Your task to perform on an android device: Show me recent news Image 0: 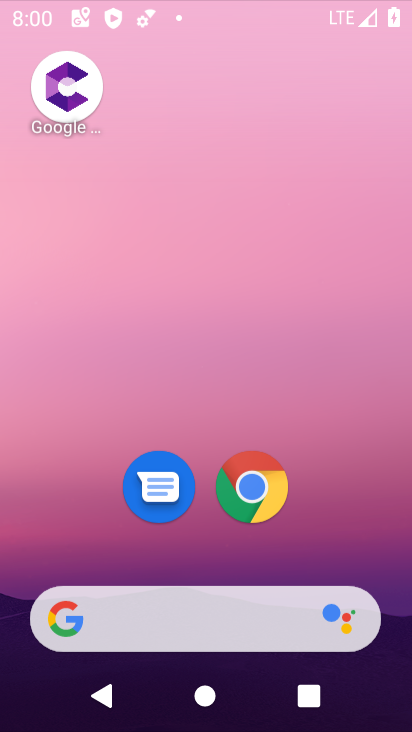
Step 0: drag from (201, 328) to (255, 108)
Your task to perform on an android device: Show me recent news Image 1: 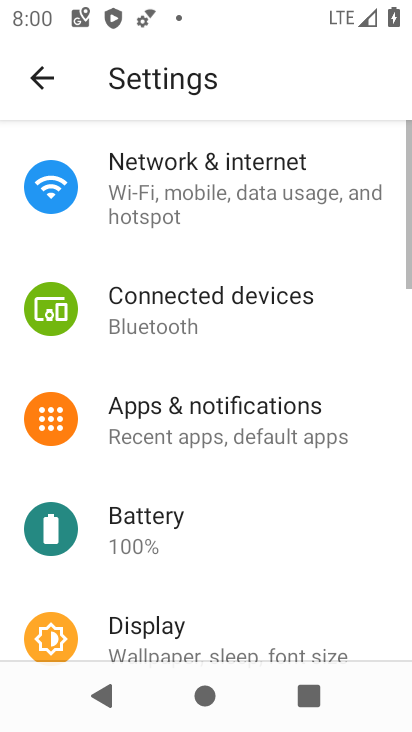
Step 1: press home button
Your task to perform on an android device: Show me recent news Image 2: 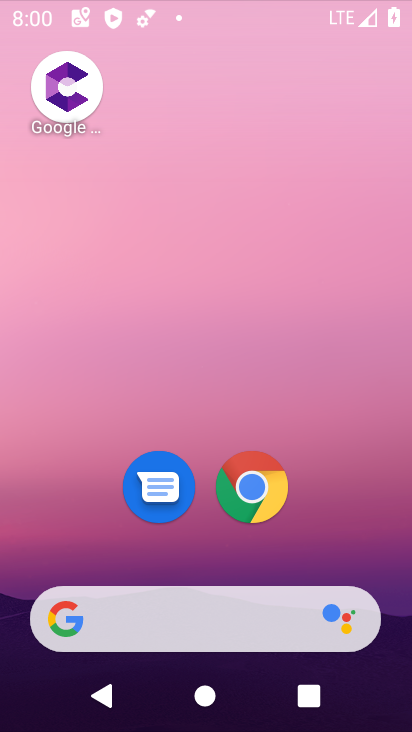
Step 2: drag from (203, 585) to (270, 103)
Your task to perform on an android device: Show me recent news Image 3: 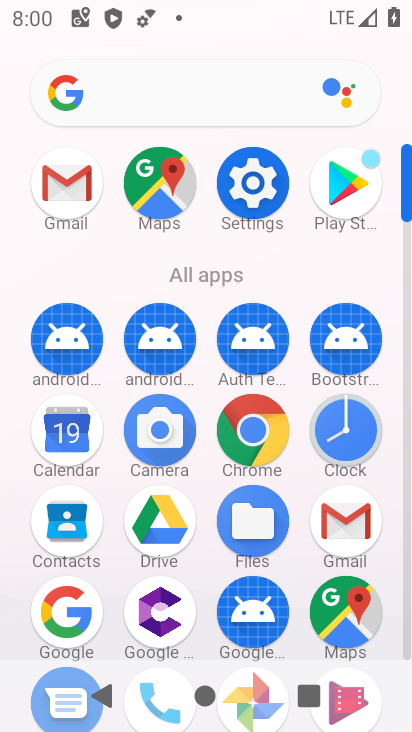
Step 3: click (274, 88)
Your task to perform on an android device: Show me recent news Image 4: 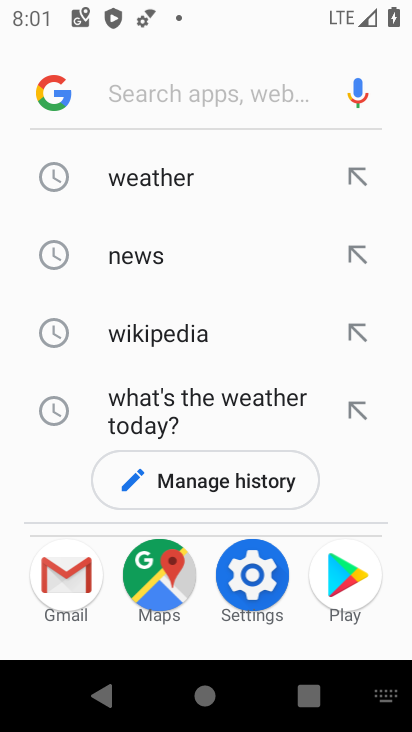
Step 4: type "recent news"
Your task to perform on an android device: Show me recent news Image 5: 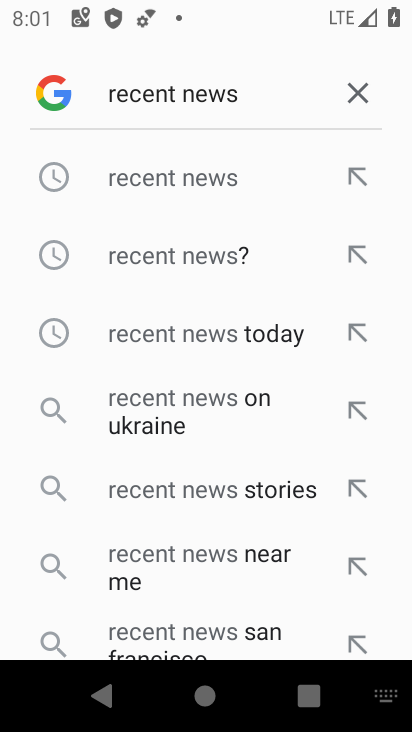
Step 5: click (65, 184)
Your task to perform on an android device: Show me recent news Image 6: 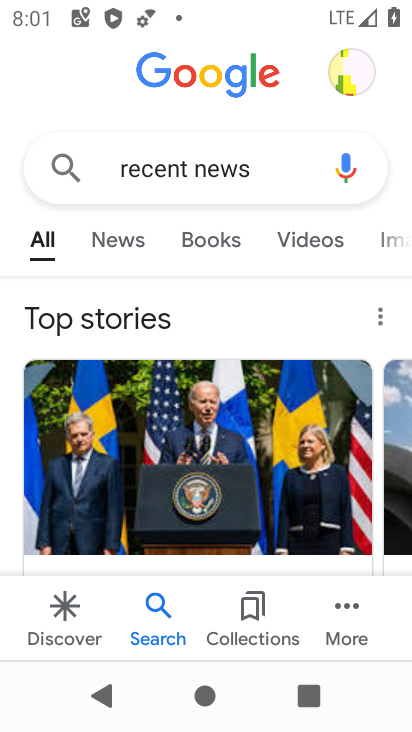
Step 6: task complete